Your task to perform on an android device: open a bookmark in the chrome app Image 0: 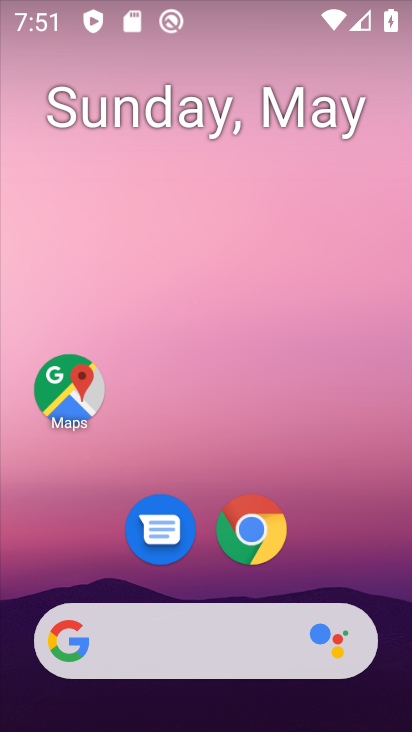
Step 0: drag from (378, 538) to (344, 89)
Your task to perform on an android device: open a bookmark in the chrome app Image 1: 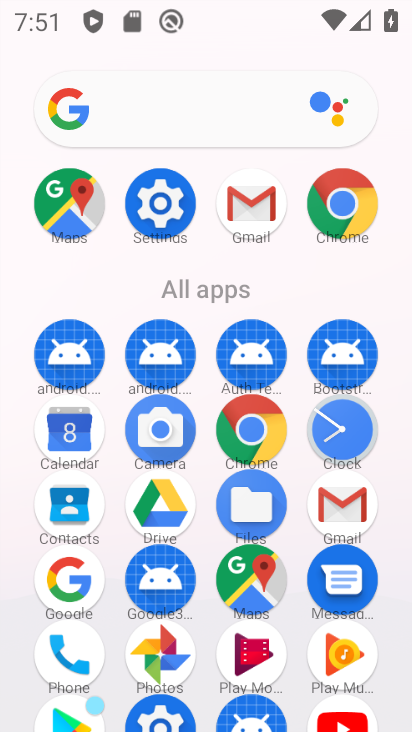
Step 1: click (253, 442)
Your task to perform on an android device: open a bookmark in the chrome app Image 2: 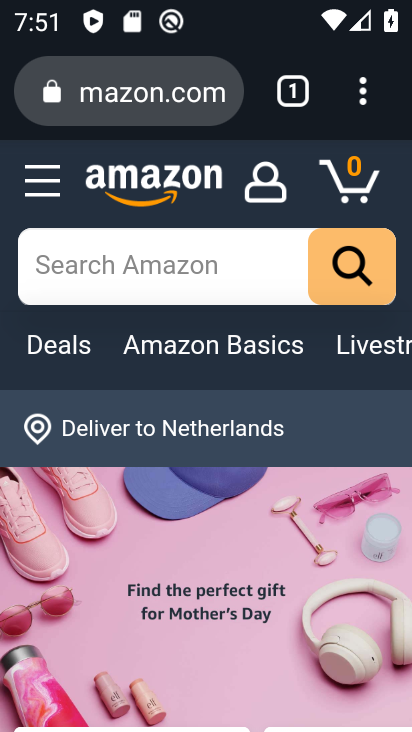
Step 2: task complete